Your task to perform on an android device: Open the calendar app, open the side menu, and click the "Day" option Image 0: 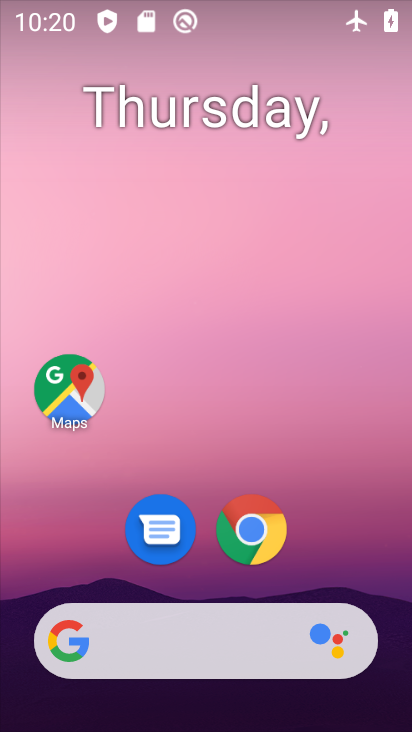
Step 0: click (79, 395)
Your task to perform on an android device: Open the calendar app, open the side menu, and click the "Day" option Image 1: 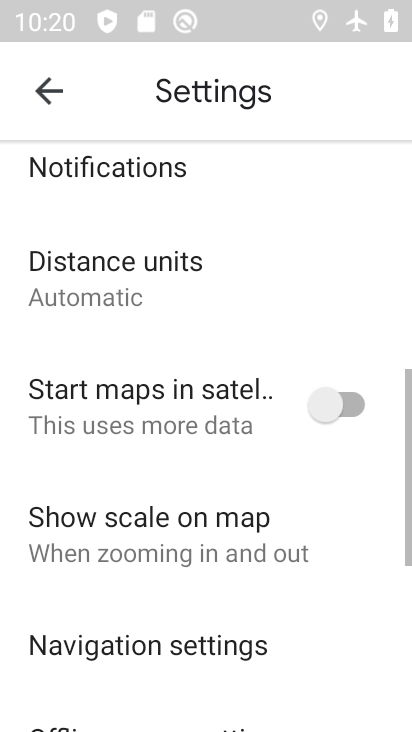
Step 1: click (54, 86)
Your task to perform on an android device: Open the calendar app, open the side menu, and click the "Day" option Image 2: 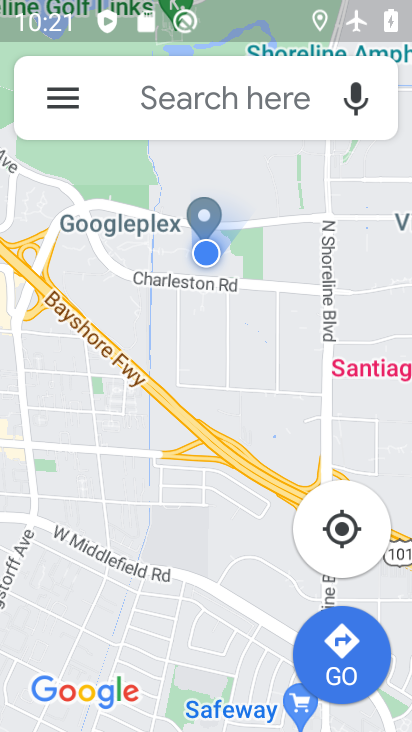
Step 2: click (53, 95)
Your task to perform on an android device: Open the calendar app, open the side menu, and click the "Day" option Image 3: 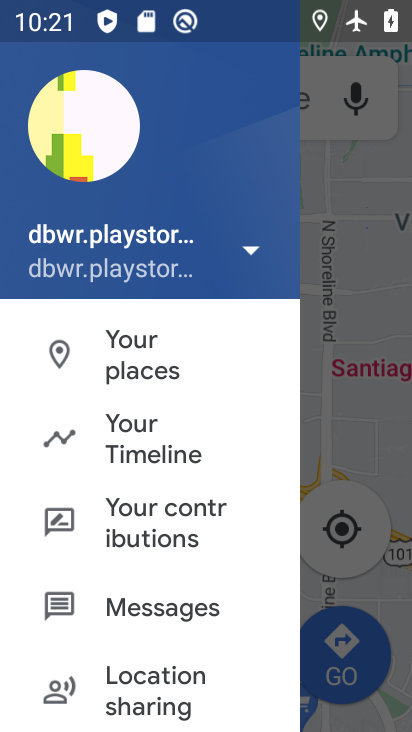
Step 3: press home button
Your task to perform on an android device: Open the calendar app, open the side menu, and click the "Day" option Image 4: 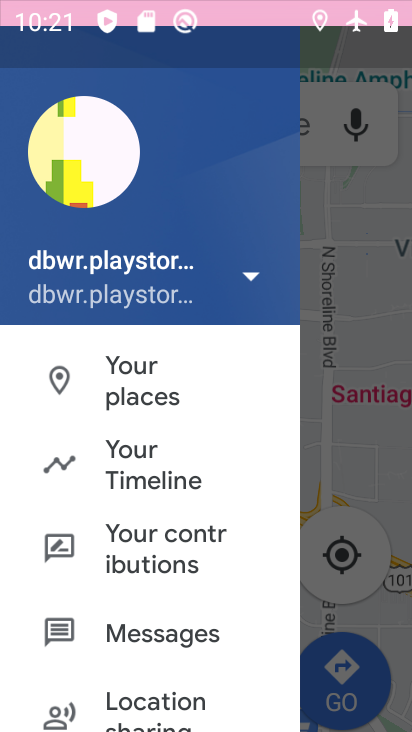
Step 4: press home button
Your task to perform on an android device: Open the calendar app, open the side menu, and click the "Day" option Image 5: 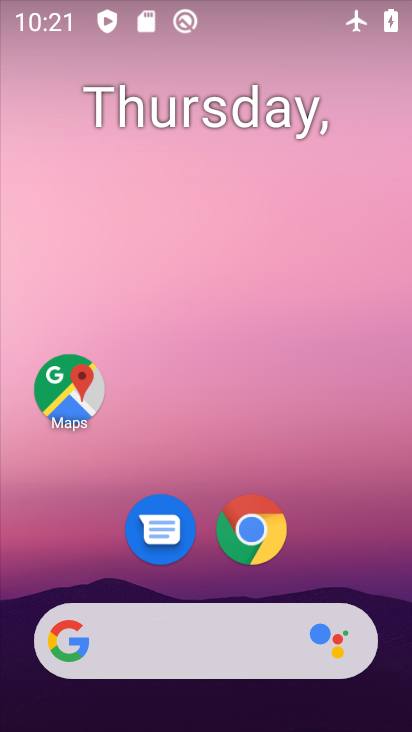
Step 5: drag from (266, 595) to (307, 132)
Your task to perform on an android device: Open the calendar app, open the side menu, and click the "Day" option Image 6: 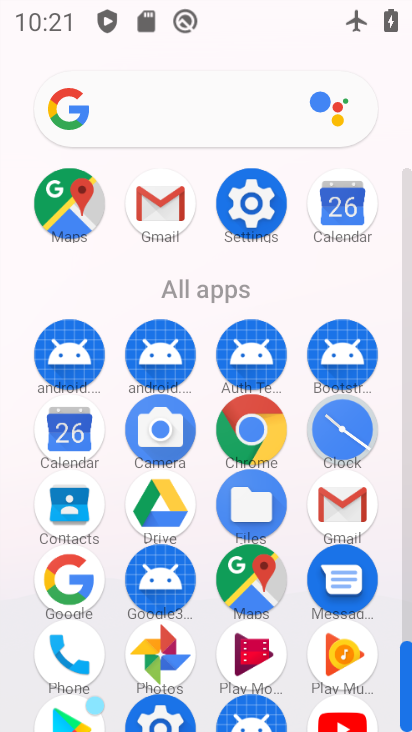
Step 6: click (351, 222)
Your task to perform on an android device: Open the calendar app, open the side menu, and click the "Day" option Image 7: 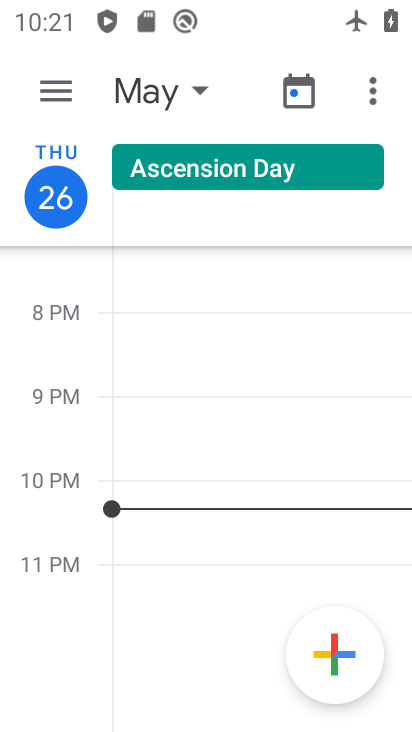
Step 7: click (52, 89)
Your task to perform on an android device: Open the calendar app, open the side menu, and click the "Day" option Image 8: 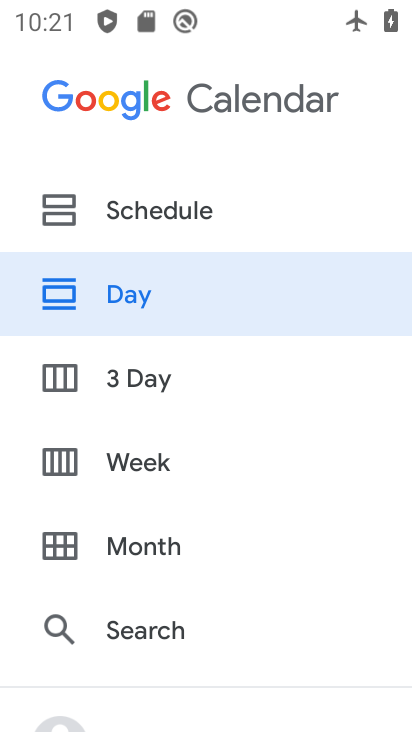
Step 8: click (139, 289)
Your task to perform on an android device: Open the calendar app, open the side menu, and click the "Day" option Image 9: 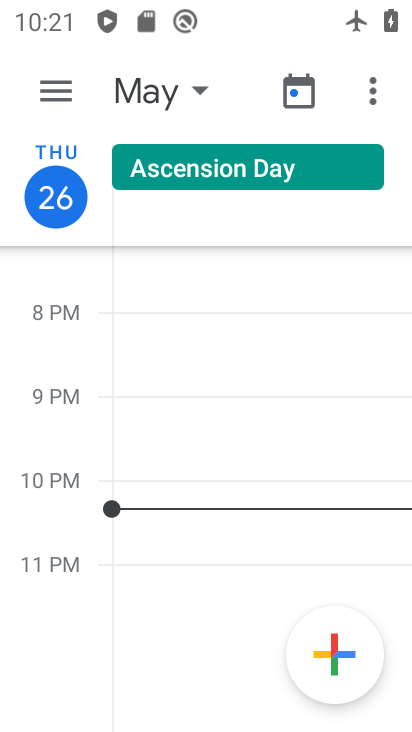
Step 9: task complete